Your task to perform on an android device: How much does a 3 bedroom apartment rent for in Chicago? Image 0: 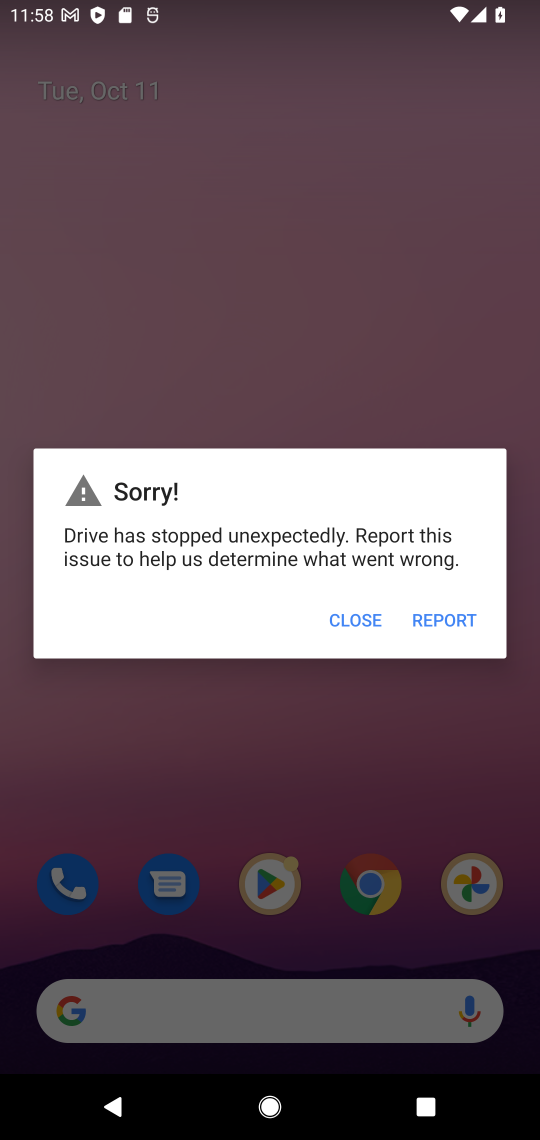
Step 0: click (429, 399)
Your task to perform on an android device: How much does a 3 bedroom apartment rent for in Chicago? Image 1: 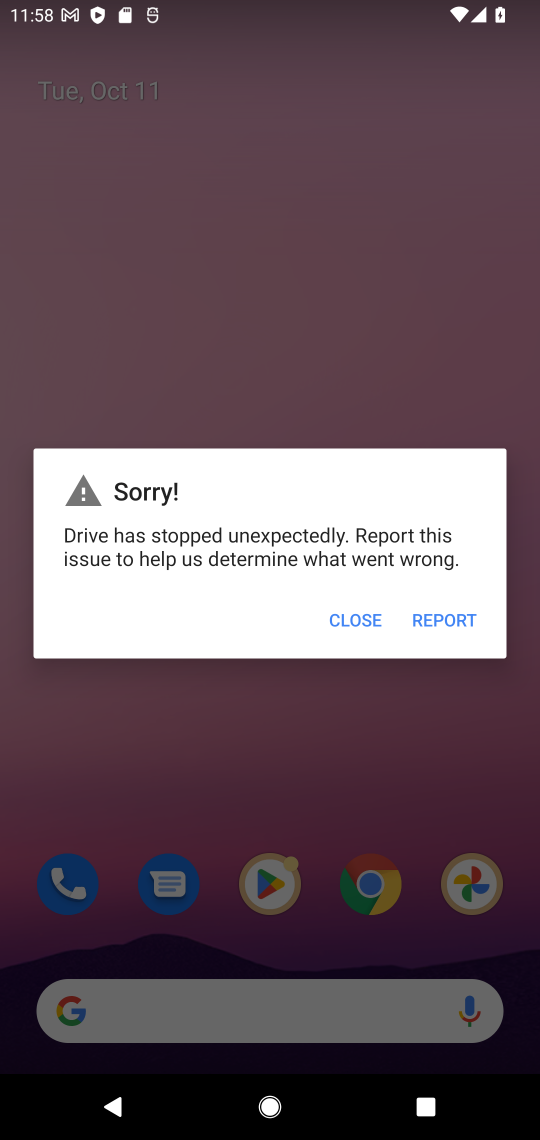
Step 1: click (352, 628)
Your task to perform on an android device: How much does a 3 bedroom apartment rent for in Chicago? Image 2: 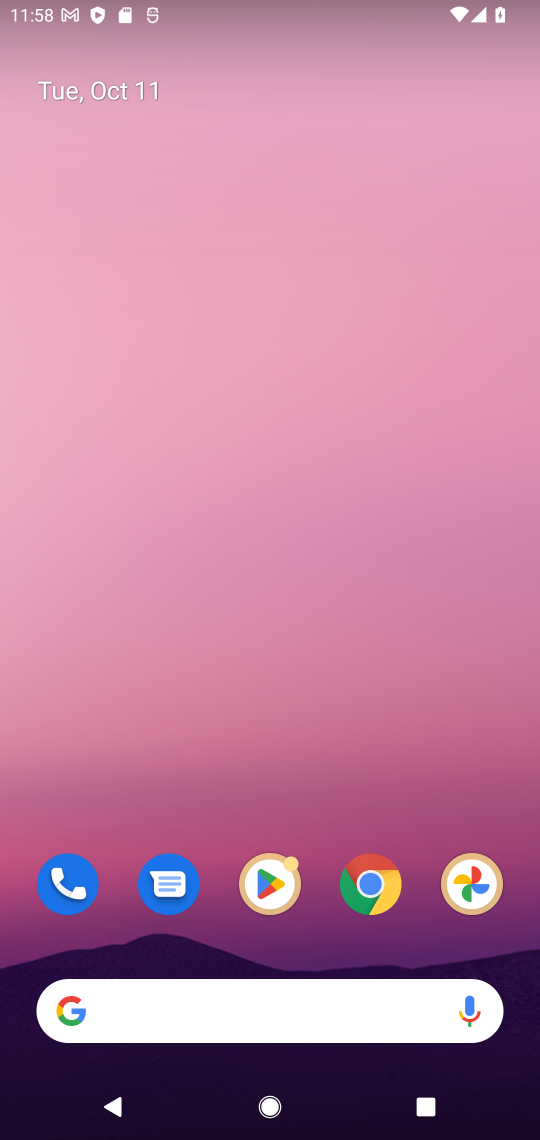
Step 2: drag from (279, 985) to (244, 316)
Your task to perform on an android device: How much does a 3 bedroom apartment rent for in Chicago? Image 3: 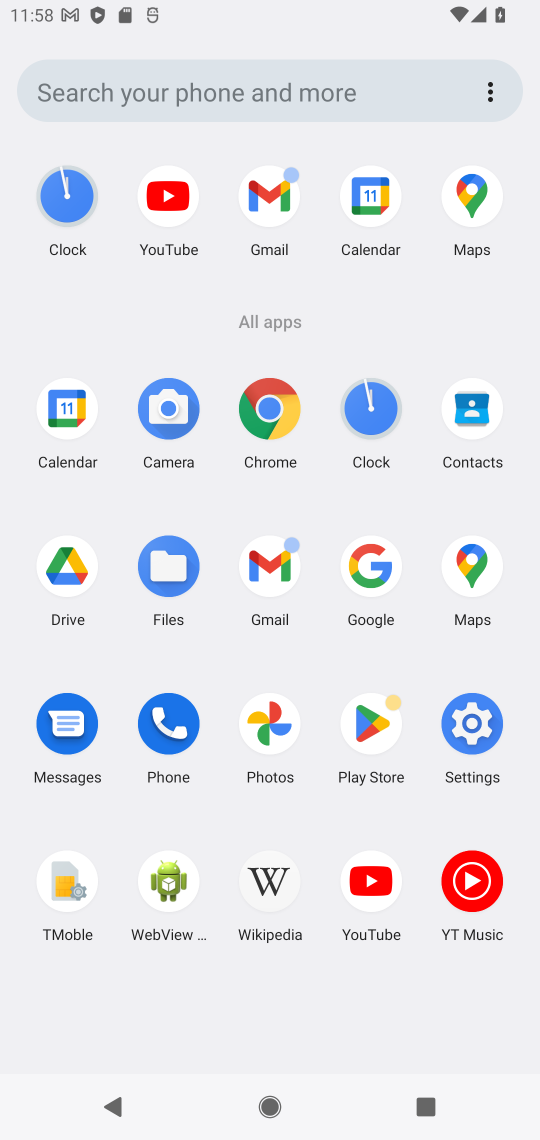
Step 3: click (385, 562)
Your task to perform on an android device: How much does a 3 bedroom apartment rent for in Chicago? Image 4: 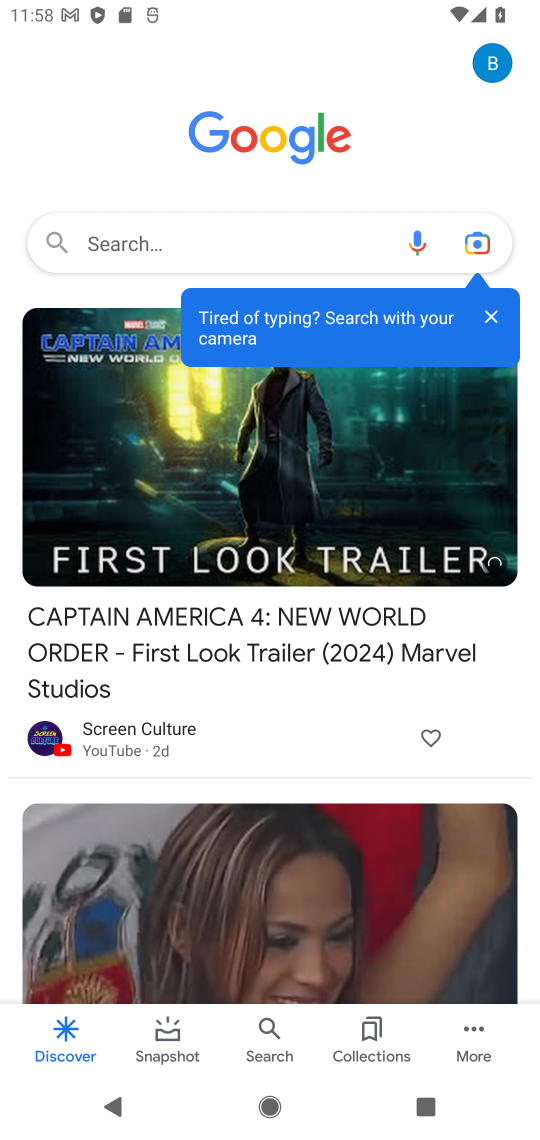
Step 4: click (238, 237)
Your task to perform on an android device: How much does a 3 bedroom apartment rent for in Chicago? Image 5: 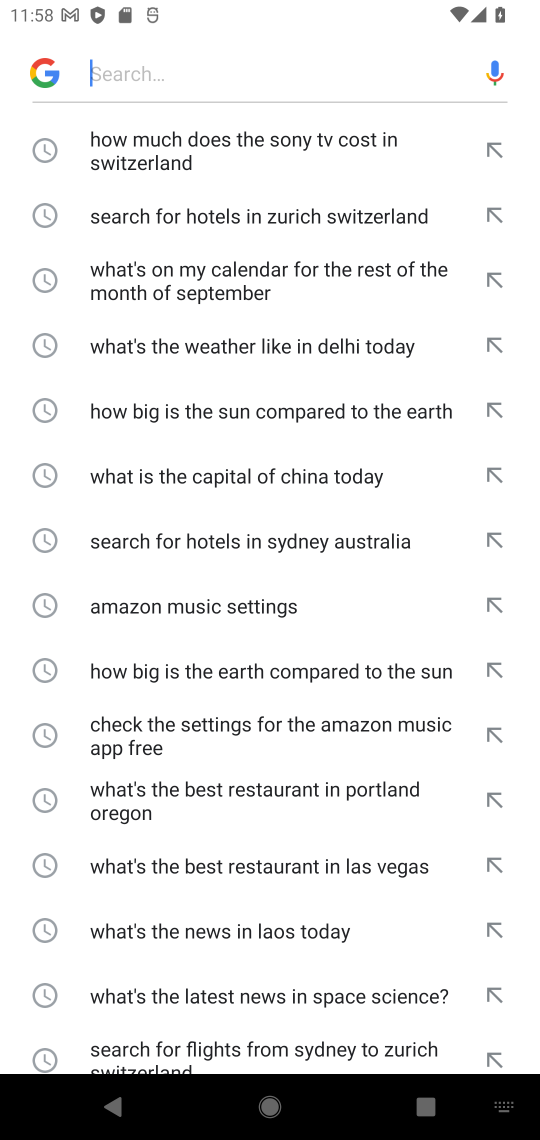
Step 5: type "How much does a 3 bedroom apartment rent for in Chicago?"
Your task to perform on an android device: How much does a 3 bedroom apartment rent for in Chicago? Image 6: 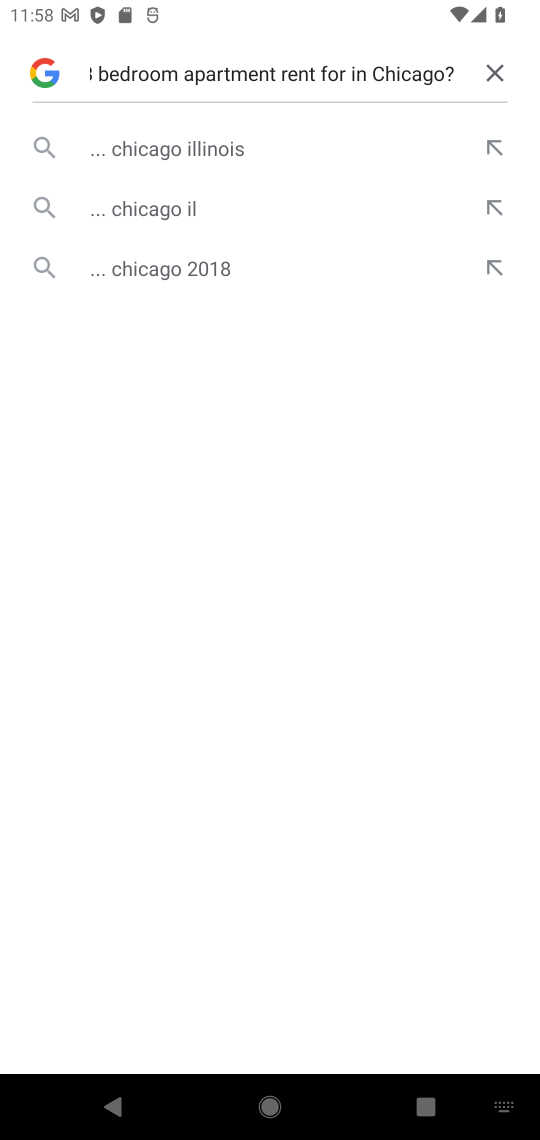
Step 6: click (162, 142)
Your task to perform on an android device: How much does a 3 bedroom apartment rent for in Chicago? Image 7: 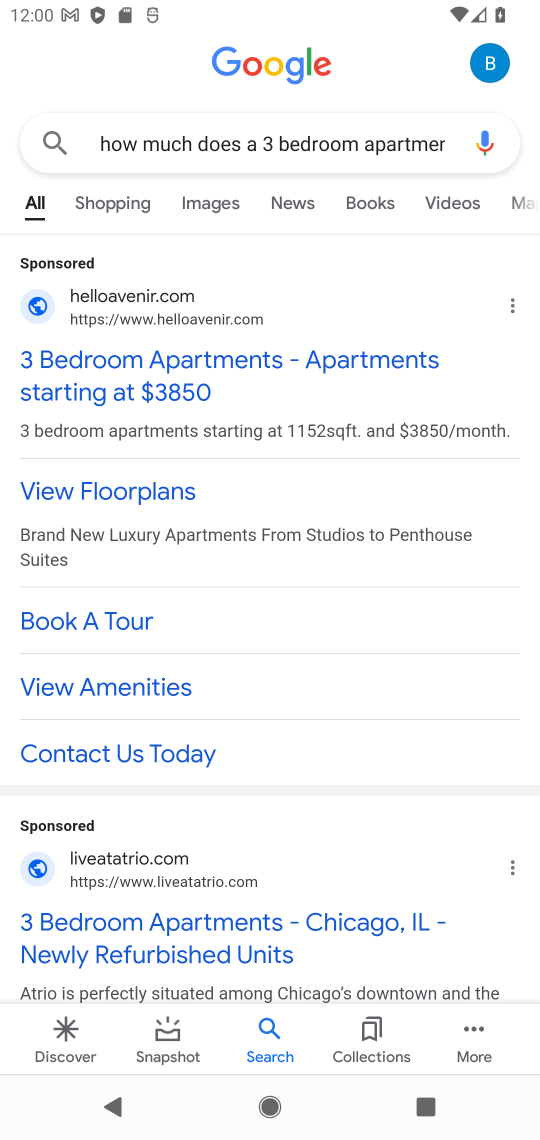
Step 7: click (189, 367)
Your task to perform on an android device: How much does a 3 bedroom apartment rent for in Chicago? Image 8: 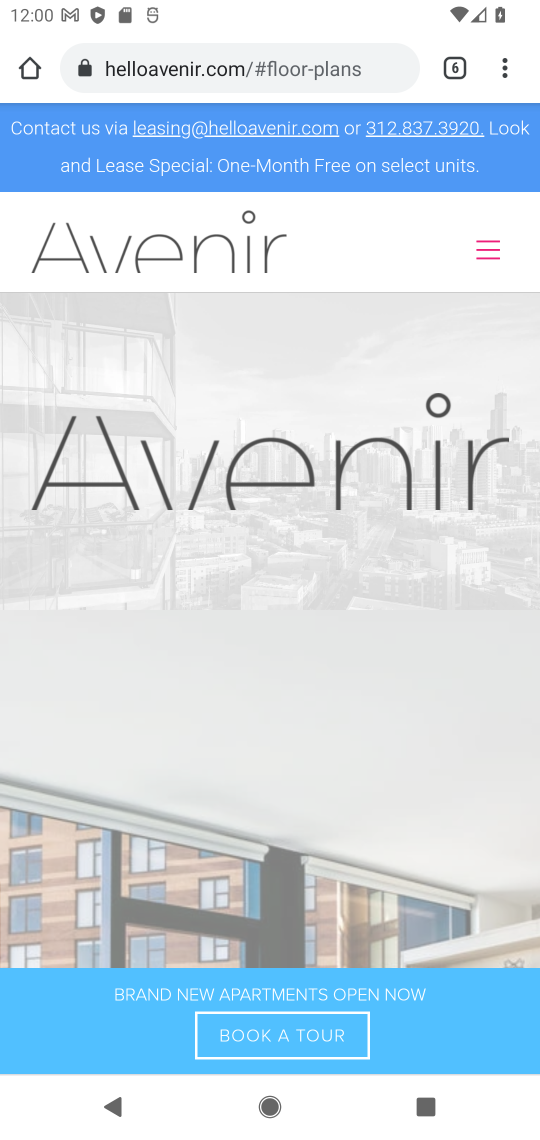
Step 8: task complete